Your task to perform on an android device: Open calendar and show me the first week of next month Image 0: 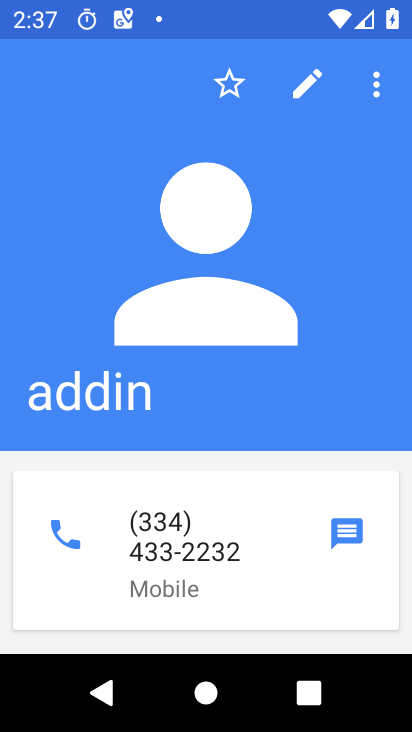
Step 0: press home button
Your task to perform on an android device: Open calendar and show me the first week of next month Image 1: 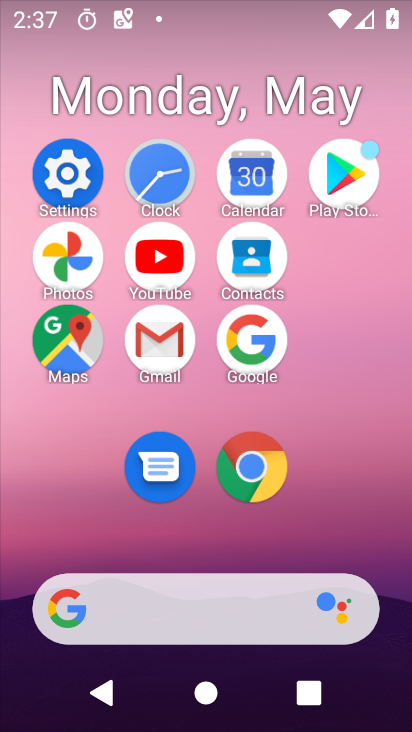
Step 1: click (248, 178)
Your task to perform on an android device: Open calendar and show me the first week of next month Image 2: 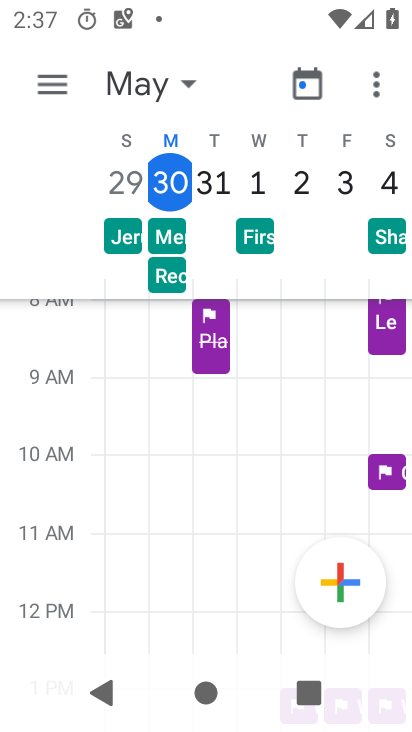
Step 2: task complete